Your task to perform on an android device: turn off data saver in the chrome app Image 0: 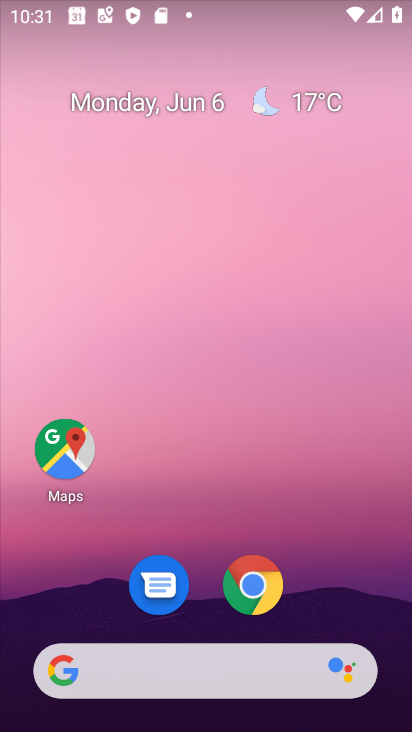
Step 0: click (252, 586)
Your task to perform on an android device: turn off data saver in the chrome app Image 1: 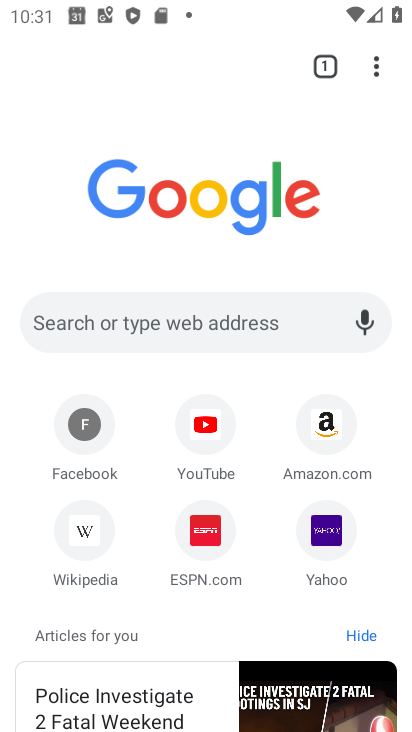
Step 1: click (374, 72)
Your task to perform on an android device: turn off data saver in the chrome app Image 2: 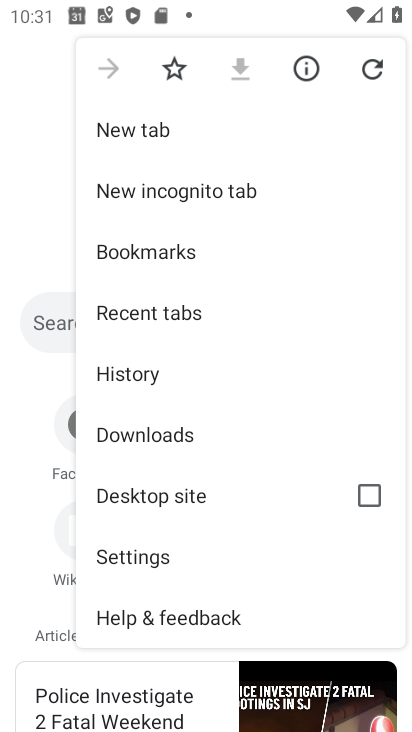
Step 2: drag from (220, 508) to (240, 249)
Your task to perform on an android device: turn off data saver in the chrome app Image 3: 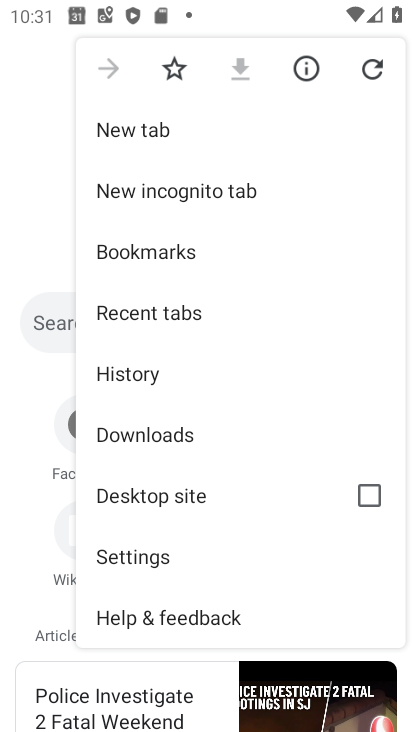
Step 3: click (169, 551)
Your task to perform on an android device: turn off data saver in the chrome app Image 4: 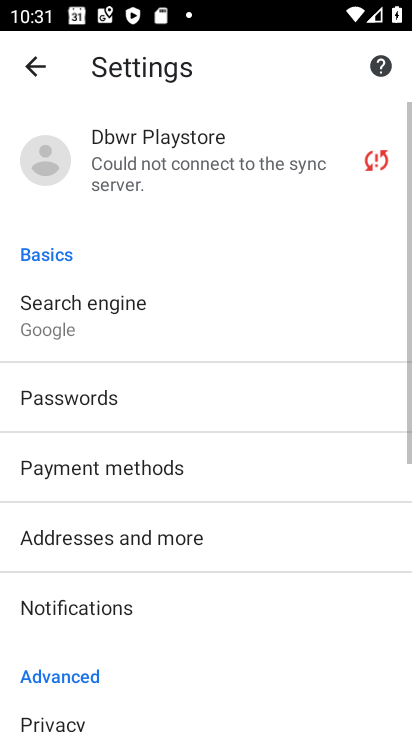
Step 4: drag from (232, 604) to (263, 96)
Your task to perform on an android device: turn off data saver in the chrome app Image 5: 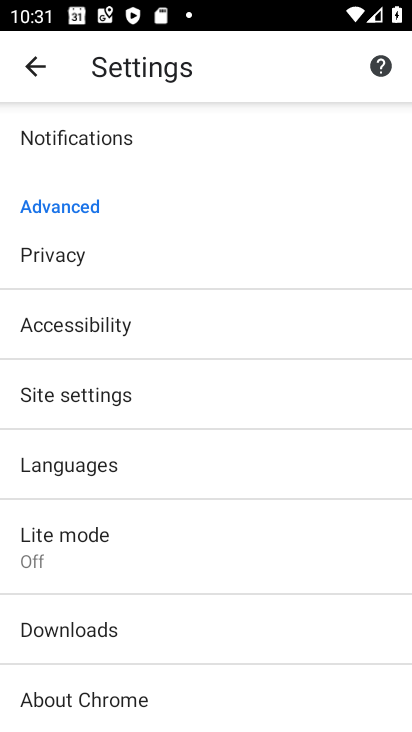
Step 5: click (230, 567)
Your task to perform on an android device: turn off data saver in the chrome app Image 6: 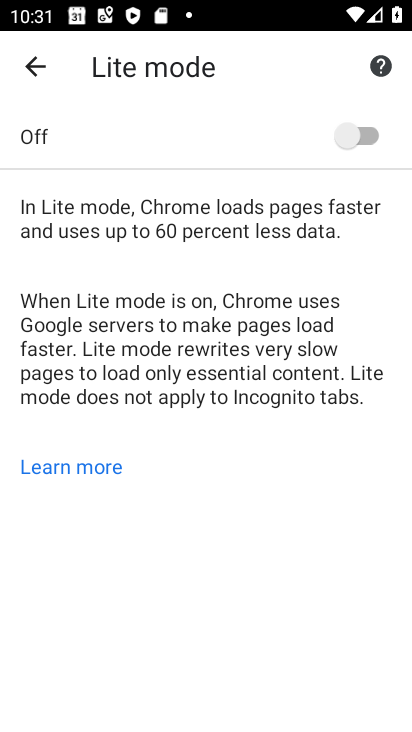
Step 6: task complete